Your task to perform on an android device: Open Google Chrome and click the shortcut for Amazon.com Image 0: 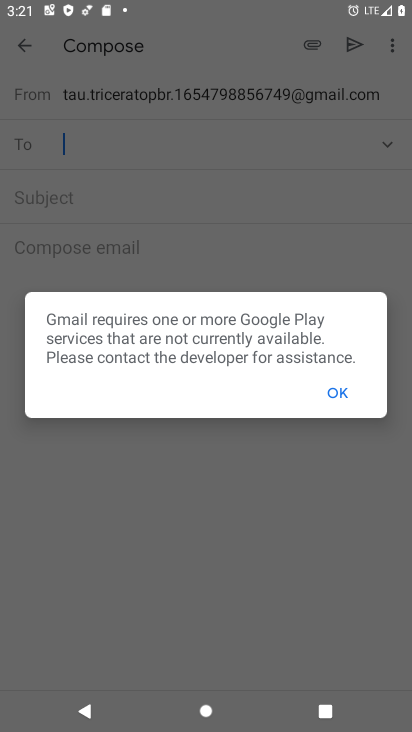
Step 0: click (331, 388)
Your task to perform on an android device: Open Google Chrome and click the shortcut for Amazon.com Image 1: 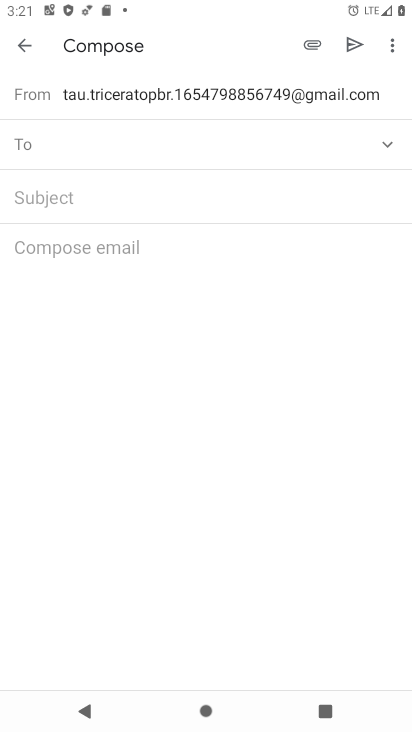
Step 1: press back button
Your task to perform on an android device: Open Google Chrome and click the shortcut for Amazon.com Image 2: 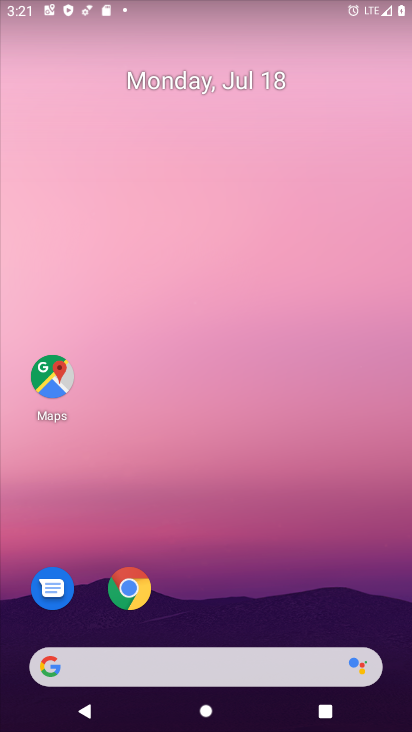
Step 2: click (142, 587)
Your task to perform on an android device: Open Google Chrome and click the shortcut for Amazon.com Image 3: 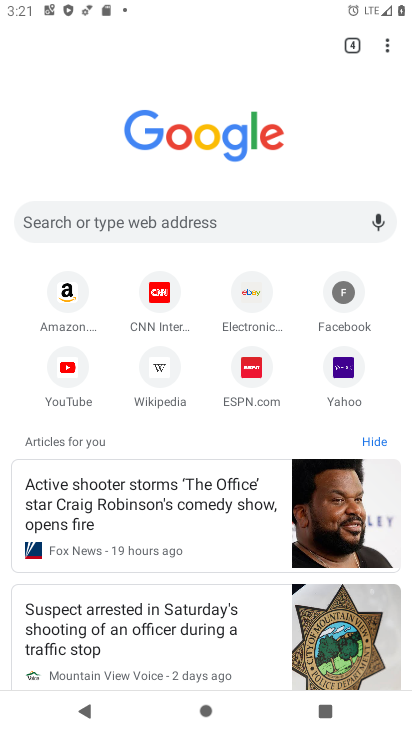
Step 3: click (70, 295)
Your task to perform on an android device: Open Google Chrome and click the shortcut for Amazon.com Image 4: 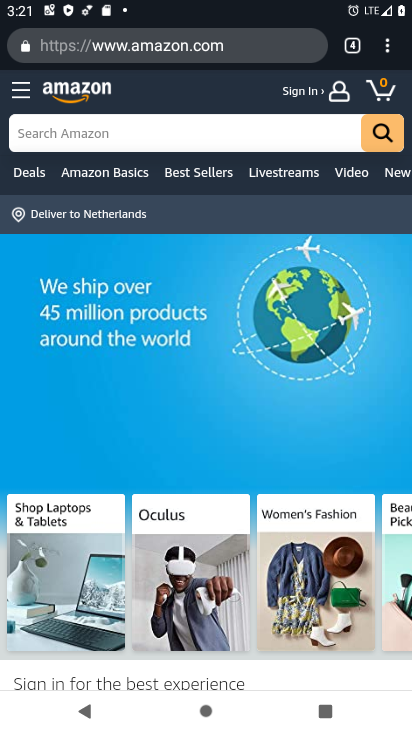
Step 4: task complete